Your task to perform on an android device: allow notifications from all sites in the chrome app Image 0: 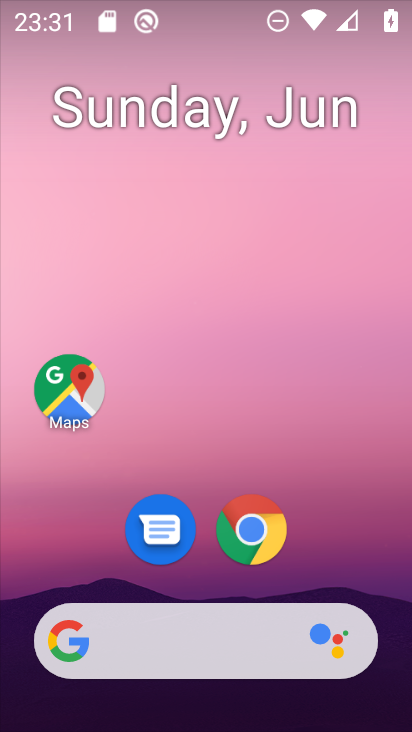
Step 0: click (250, 524)
Your task to perform on an android device: allow notifications from all sites in the chrome app Image 1: 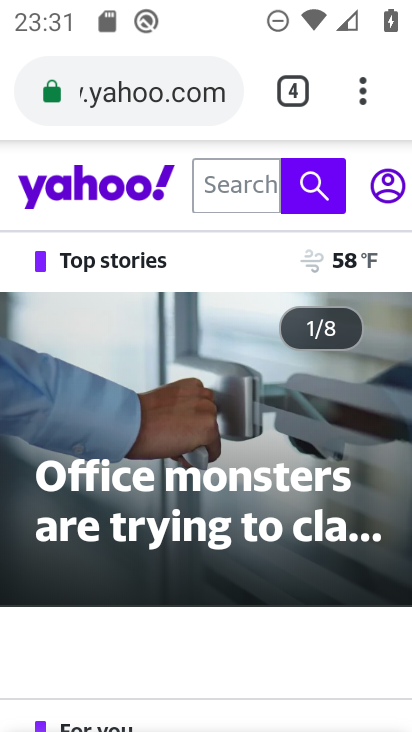
Step 1: click (362, 97)
Your task to perform on an android device: allow notifications from all sites in the chrome app Image 2: 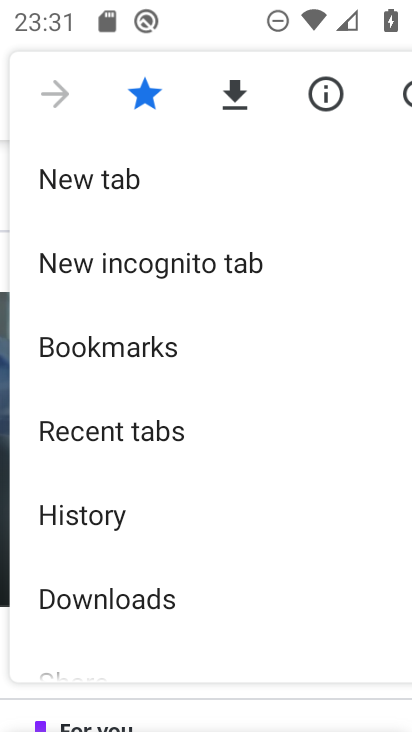
Step 2: drag from (244, 590) to (258, 262)
Your task to perform on an android device: allow notifications from all sites in the chrome app Image 3: 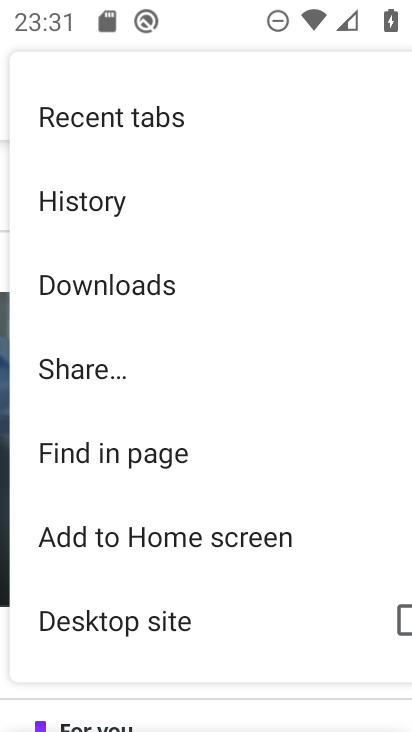
Step 3: drag from (285, 633) to (306, 242)
Your task to perform on an android device: allow notifications from all sites in the chrome app Image 4: 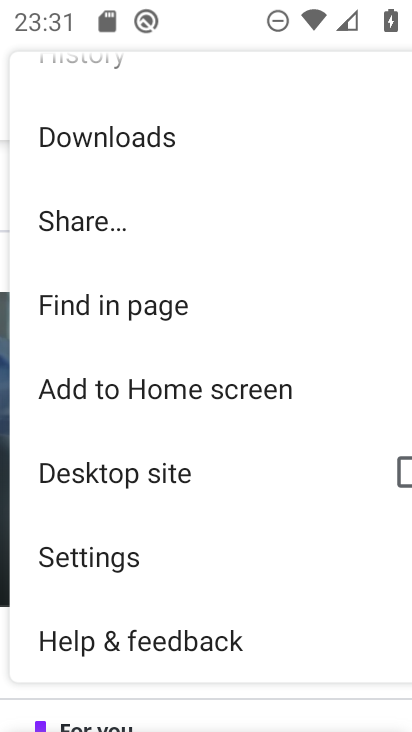
Step 4: click (115, 565)
Your task to perform on an android device: allow notifications from all sites in the chrome app Image 5: 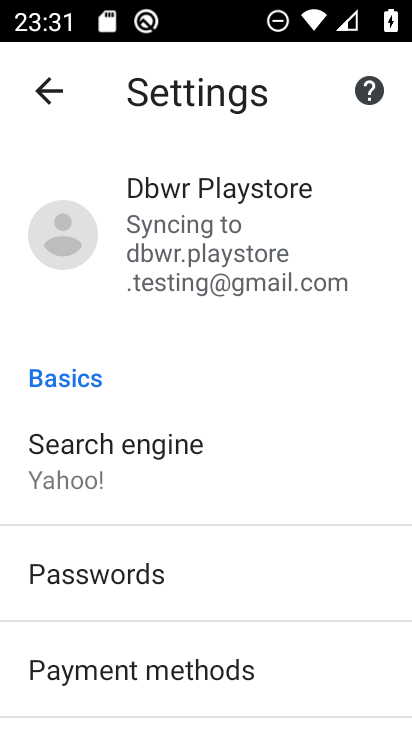
Step 5: drag from (274, 678) to (237, 270)
Your task to perform on an android device: allow notifications from all sites in the chrome app Image 6: 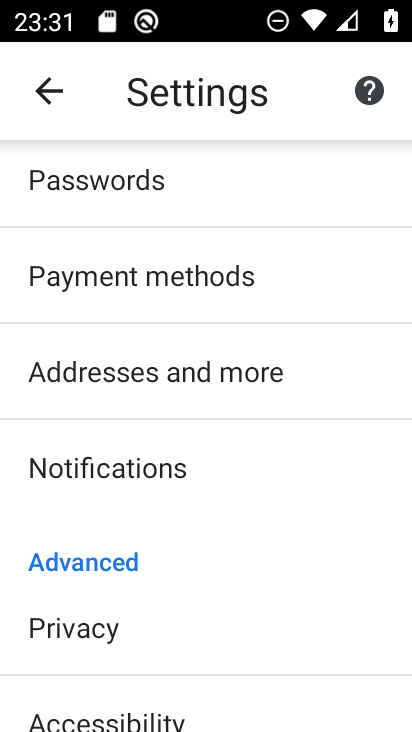
Step 6: drag from (212, 651) to (288, 215)
Your task to perform on an android device: allow notifications from all sites in the chrome app Image 7: 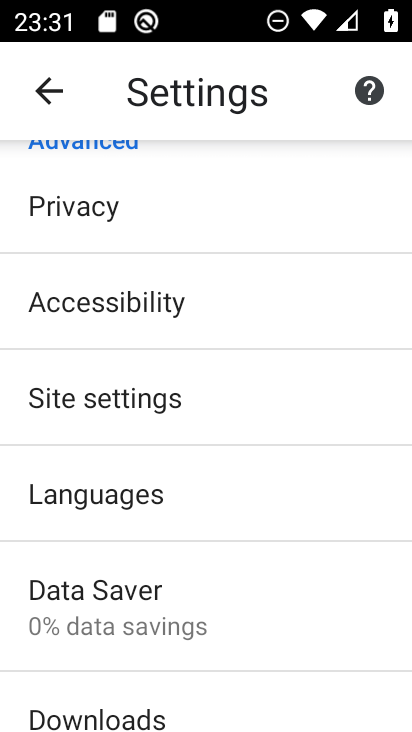
Step 7: click (99, 397)
Your task to perform on an android device: allow notifications from all sites in the chrome app Image 8: 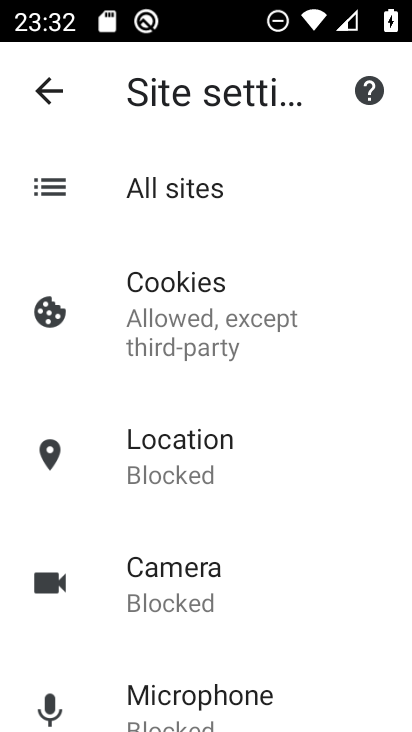
Step 8: drag from (272, 642) to (272, 227)
Your task to perform on an android device: allow notifications from all sites in the chrome app Image 9: 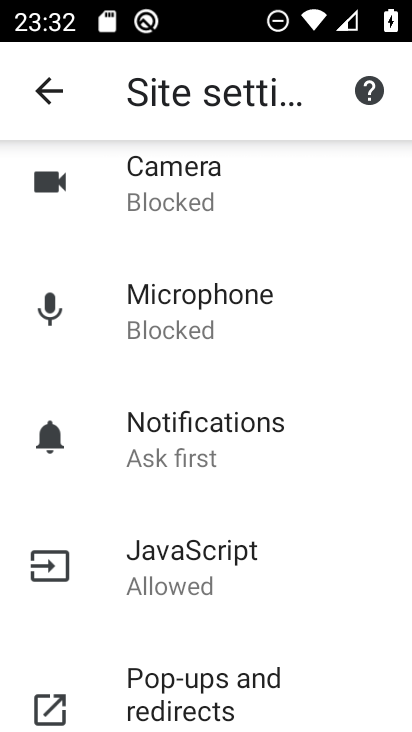
Step 9: click (193, 453)
Your task to perform on an android device: allow notifications from all sites in the chrome app Image 10: 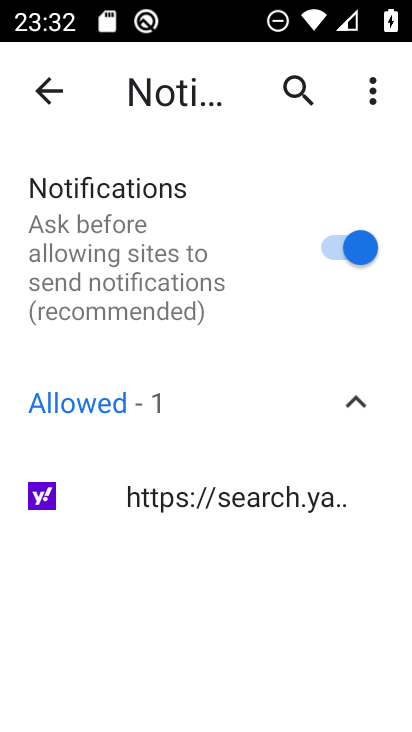
Step 10: task complete